Your task to perform on an android device: turn off javascript in the chrome app Image 0: 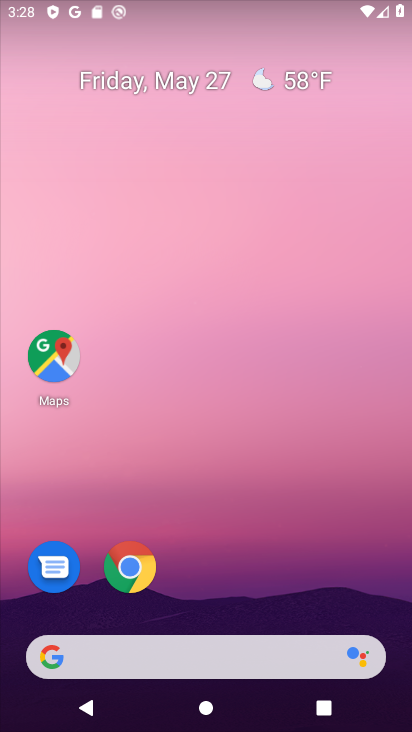
Step 0: drag from (216, 618) to (235, 103)
Your task to perform on an android device: turn off javascript in the chrome app Image 1: 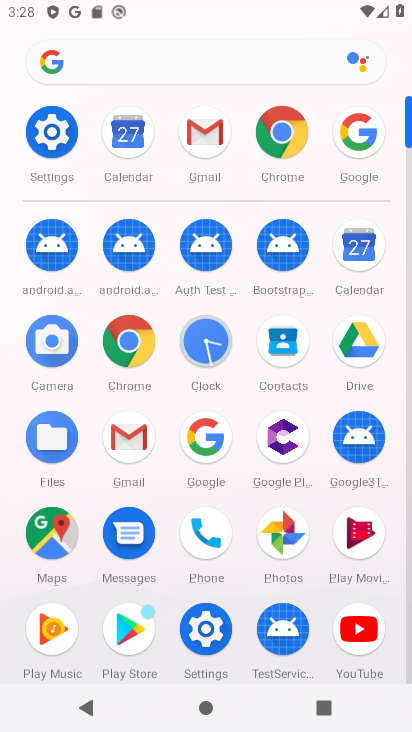
Step 1: click (280, 125)
Your task to perform on an android device: turn off javascript in the chrome app Image 2: 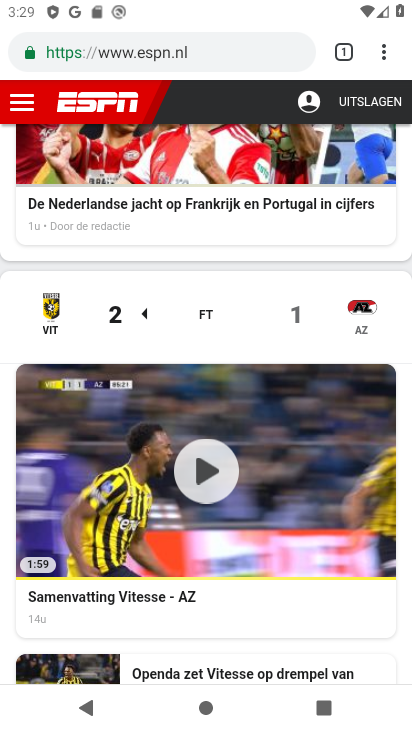
Step 2: click (382, 55)
Your task to perform on an android device: turn off javascript in the chrome app Image 3: 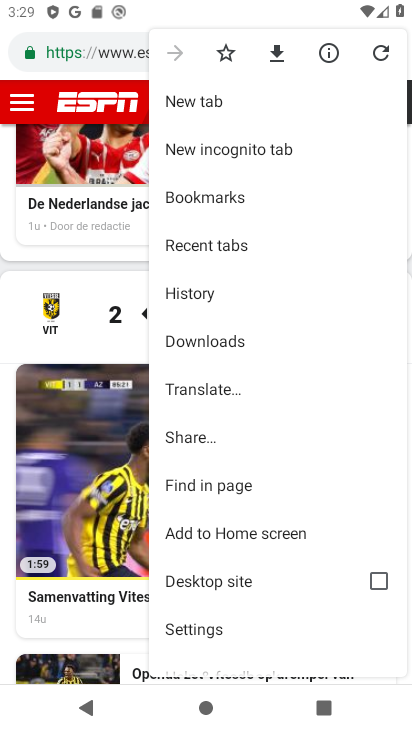
Step 3: click (227, 632)
Your task to perform on an android device: turn off javascript in the chrome app Image 4: 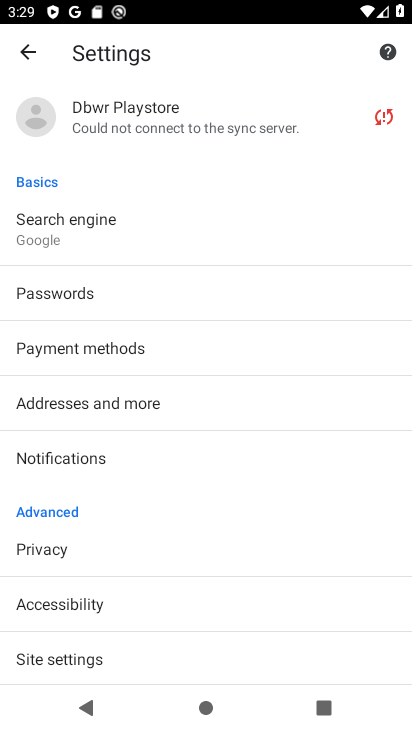
Step 4: drag from (210, 633) to (257, 146)
Your task to perform on an android device: turn off javascript in the chrome app Image 5: 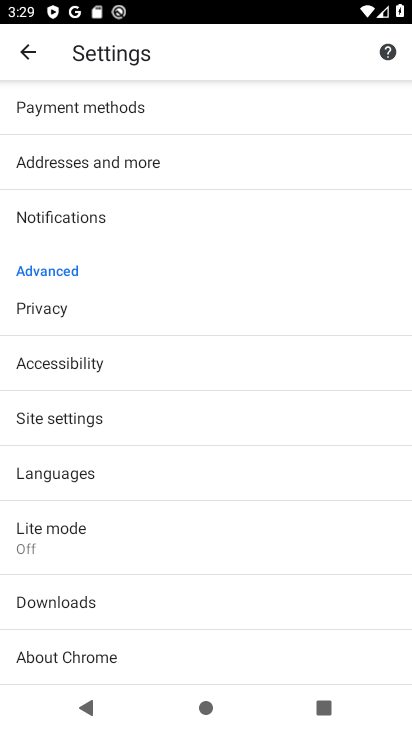
Step 5: click (121, 413)
Your task to perform on an android device: turn off javascript in the chrome app Image 6: 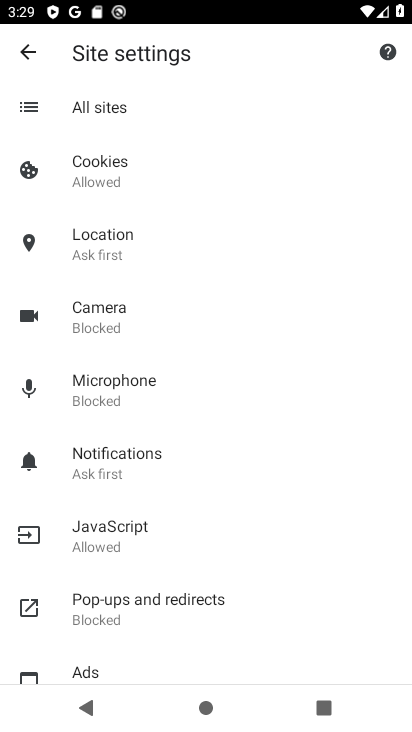
Step 6: click (149, 535)
Your task to perform on an android device: turn off javascript in the chrome app Image 7: 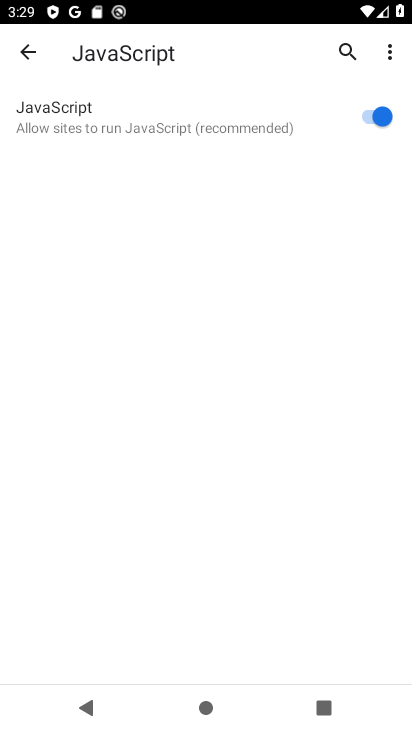
Step 7: click (374, 112)
Your task to perform on an android device: turn off javascript in the chrome app Image 8: 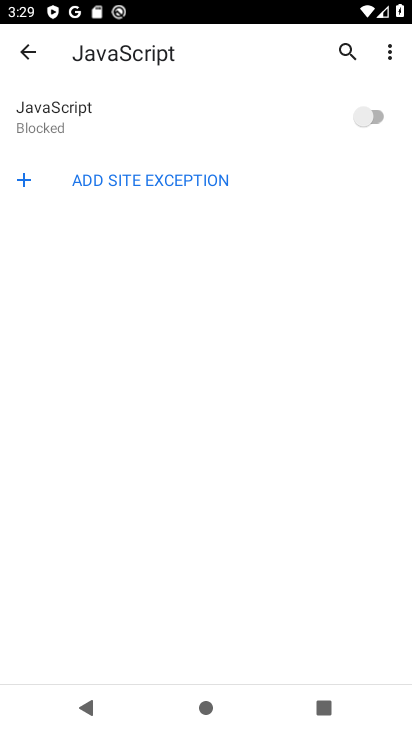
Step 8: task complete